Your task to perform on an android device: turn off data saver in the chrome app Image 0: 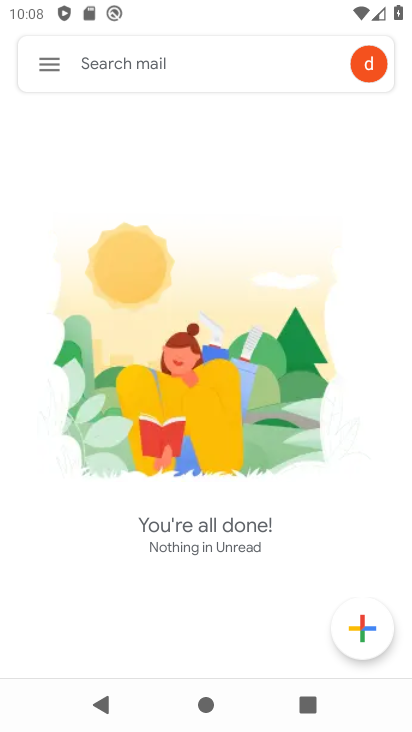
Step 0: press home button
Your task to perform on an android device: turn off data saver in the chrome app Image 1: 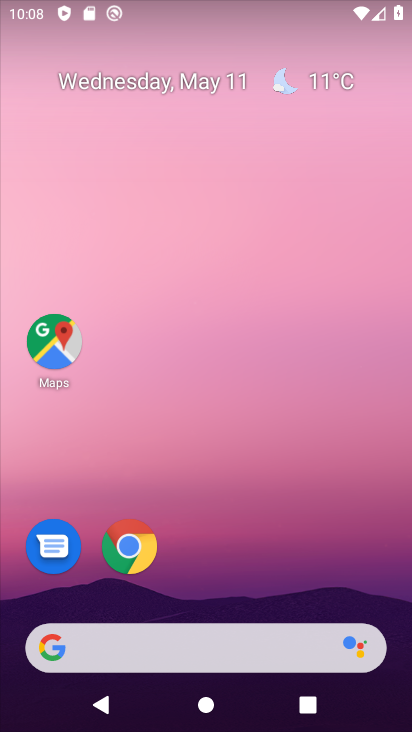
Step 1: drag from (239, 580) to (267, 115)
Your task to perform on an android device: turn off data saver in the chrome app Image 2: 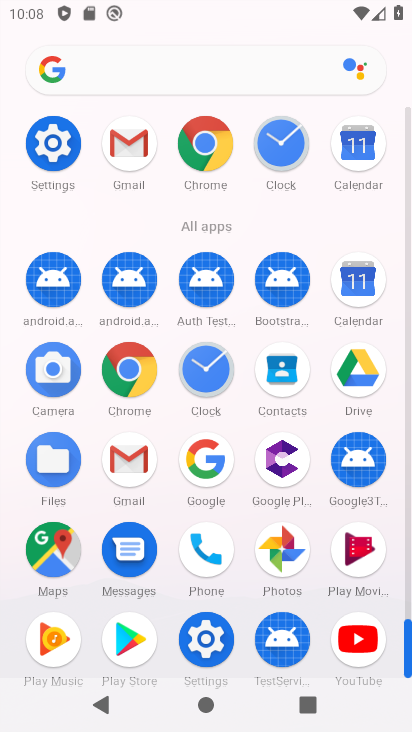
Step 2: click (131, 377)
Your task to perform on an android device: turn off data saver in the chrome app Image 3: 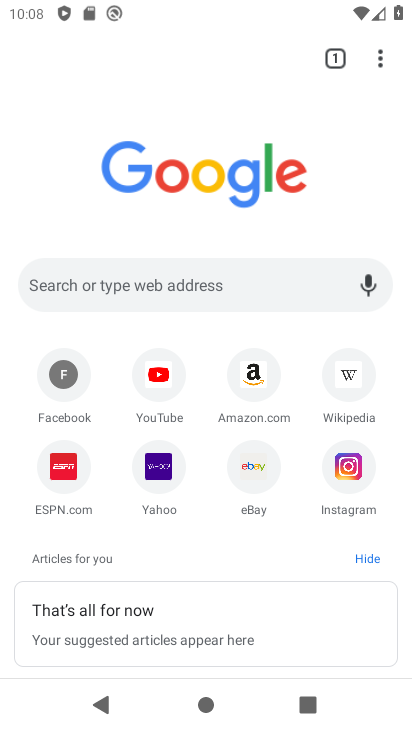
Step 3: drag from (380, 53) to (175, 490)
Your task to perform on an android device: turn off data saver in the chrome app Image 4: 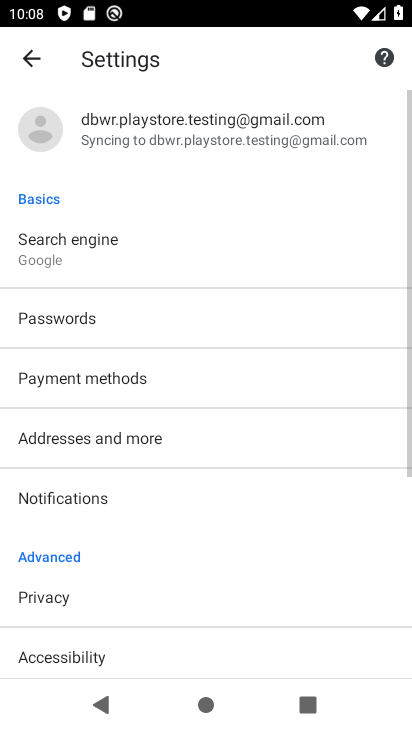
Step 4: drag from (278, 554) to (314, 214)
Your task to perform on an android device: turn off data saver in the chrome app Image 5: 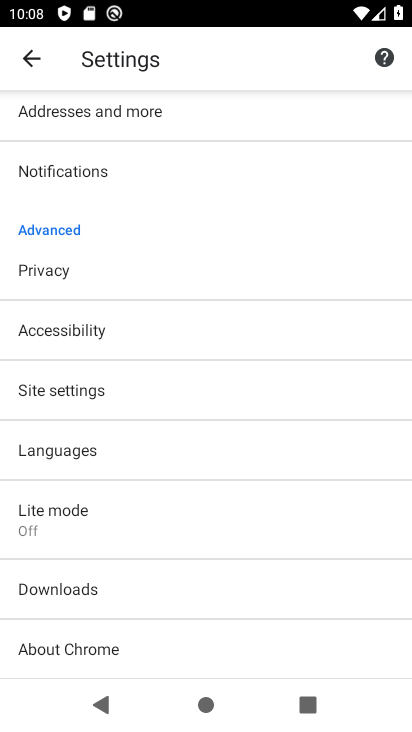
Step 5: click (45, 515)
Your task to perform on an android device: turn off data saver in the chrome app Image 6: 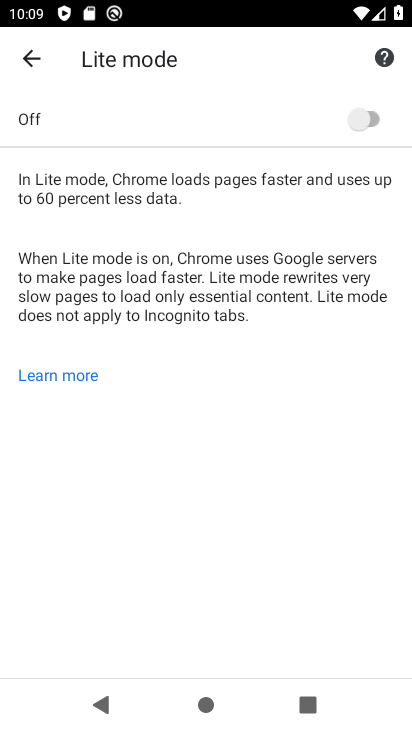
Step 6: task complete